Your task to perform on an android device: Open settings Image 0: 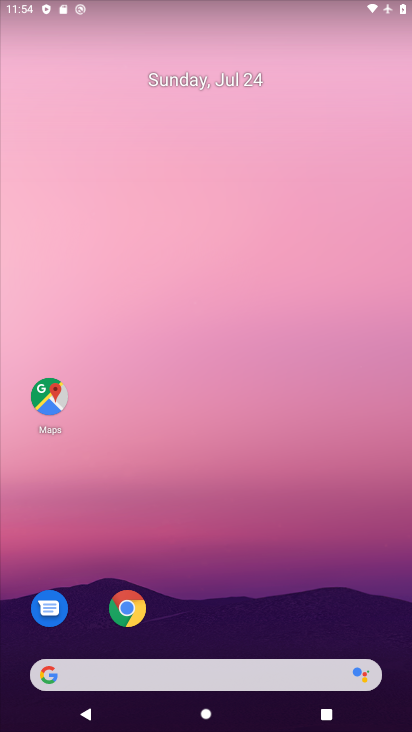
Step 0: drag from (225, 642) to (286, 68)
Your task to perform on an android device: Open settings Image 1: 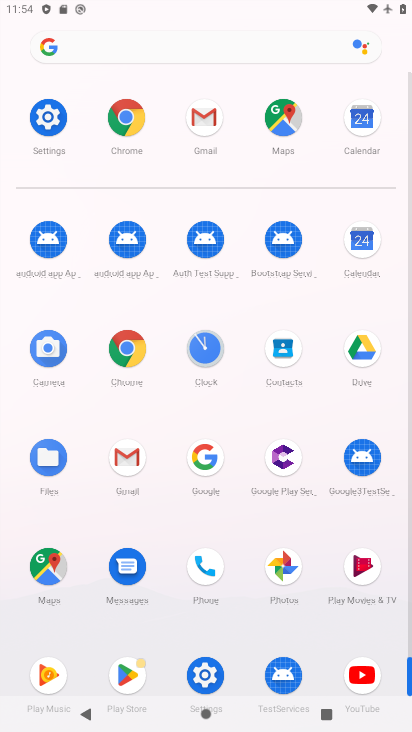
Step 1: drag from (218, 501) to (306, 52)
Your task to perform on an android device: Open settings Image 2: 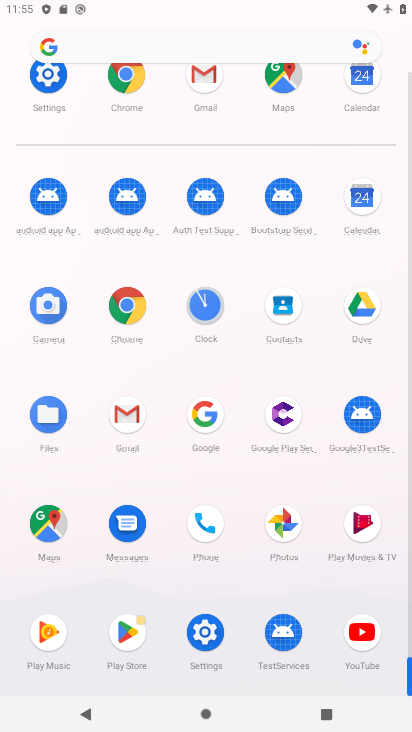
Step 2: click (203, 668)
Your task to perform on an android device: Open settings Image 3: 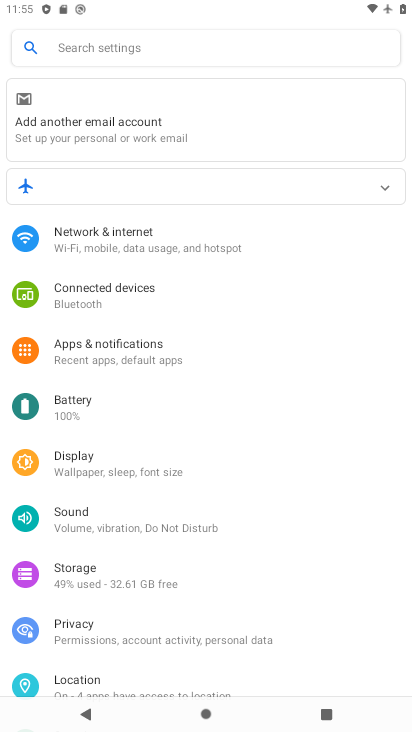
Step 3: task complete